Your task to perform on an android device: turn off javascript in the chrome app Image 0: 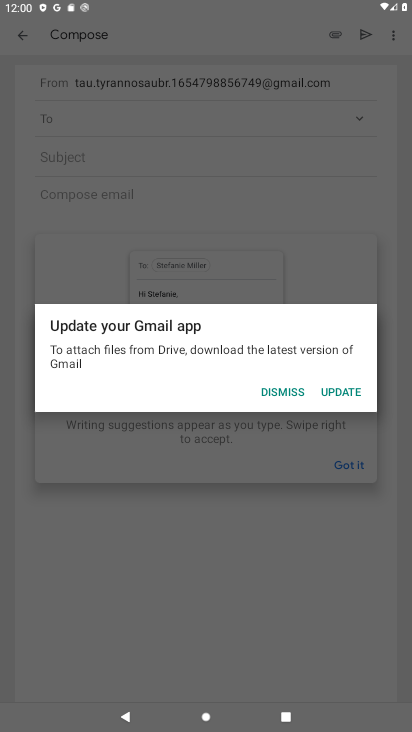
Step 0: press home button
Your task to perform on an android device: turn off javascript in the chrome app Image 1: 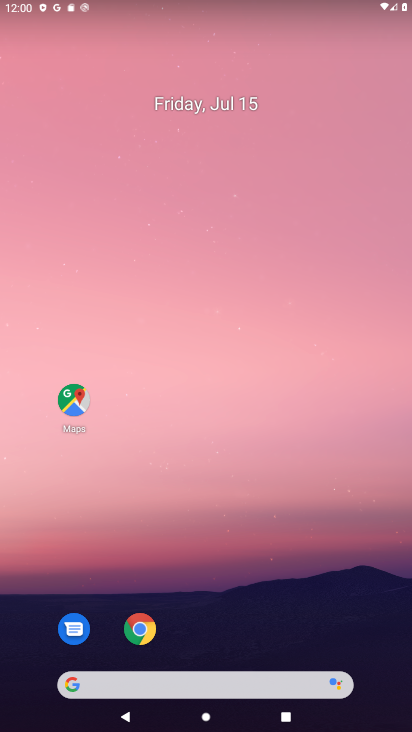
Step 1: click (143, 622)
Your task to perform on an android device: turn off javascript in the chrome app Image 2: 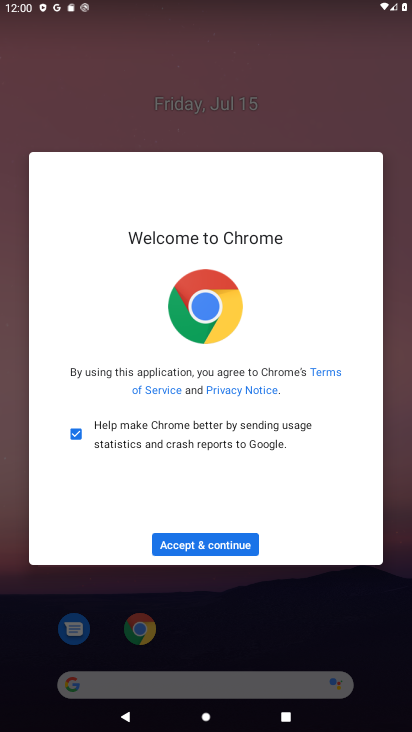
Step 2: click (190, 546)
Your task to perform on an android device: turn off javascript in the chrome app Image 3: 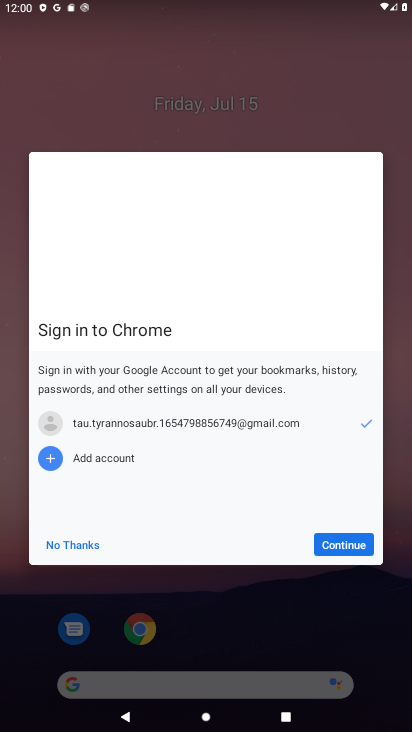
Step 3: click (325, 534)
Your task to perform on an android device: turn off javascript in the chrome app Image 4: 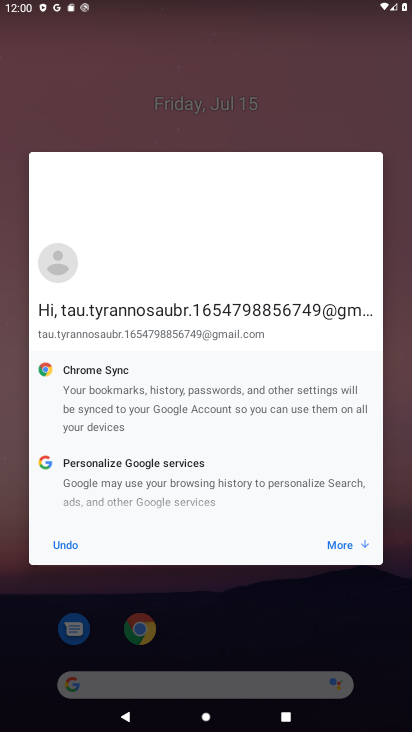
Step 4: click (345, 550)
Your task to perform on an android device: turn off javascript in the chrome app Image 5: 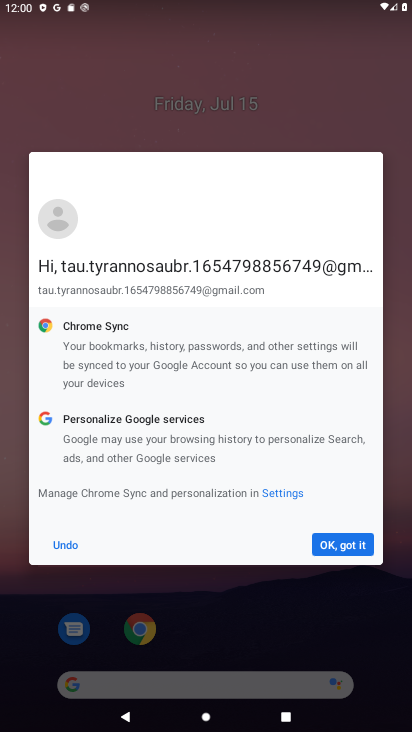
Step 5: click (345, 548)
Your task to perform on an android device: turn off javascript in the chrome app Image 6: 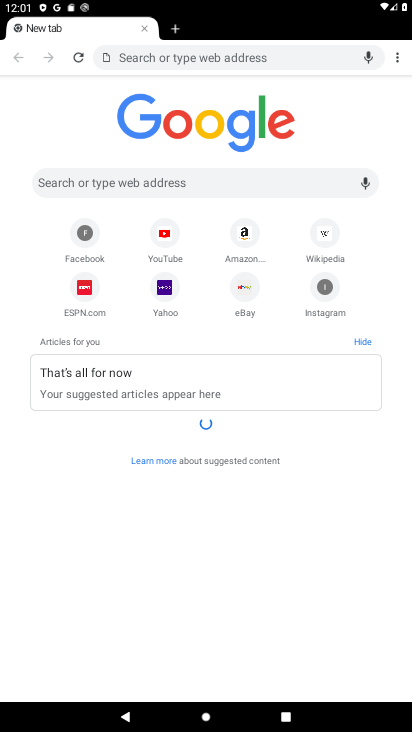
Step 6: click (399, 55)
Your task to perform on an android device: turn off javascript in the chrome app Image 7: 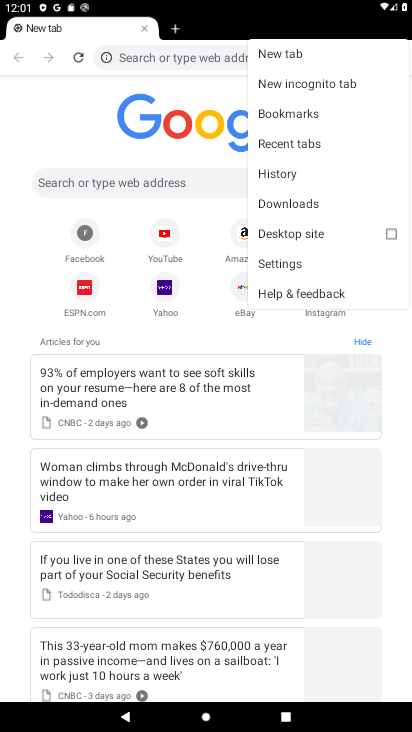
Step 7: click (293, 268)
Your task to perform on an android device: turn off javascript in the chrome app Image 8: 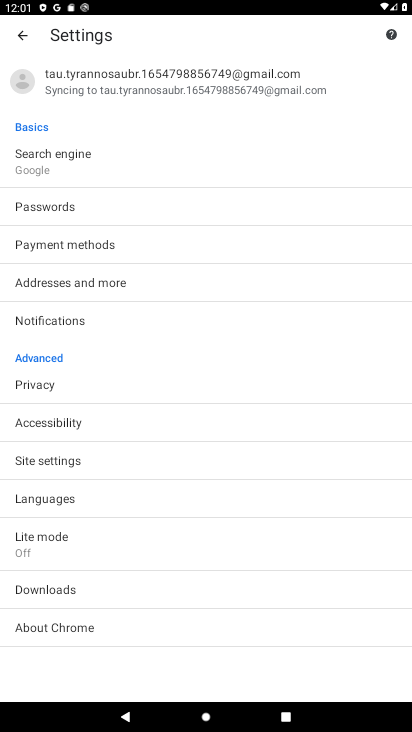
Step 8: click (52, 460)
Your task to perform on an android device: turn off javascript in the chrome app Image 9: 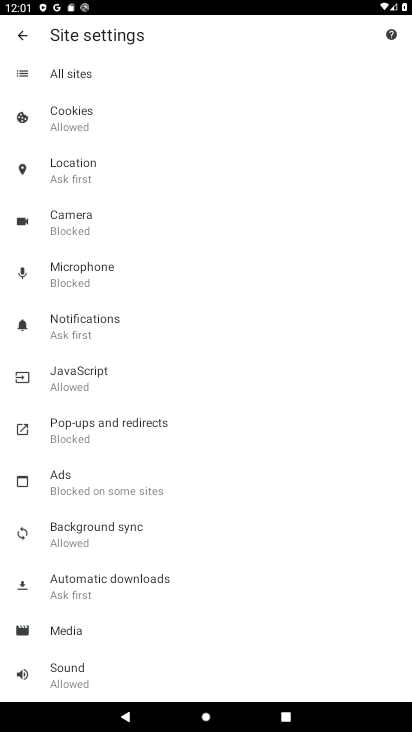
Step 9: click (80, 388)
Your task to perform on an android device: turn off javascript in the chrome app Image 10: 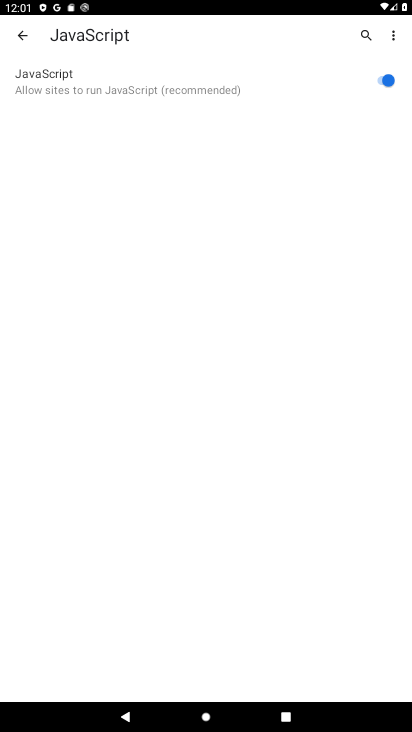
Step 10: click (393, 78)
Your task to perform on an android device: turn off javascript in the chrome app Image 11: 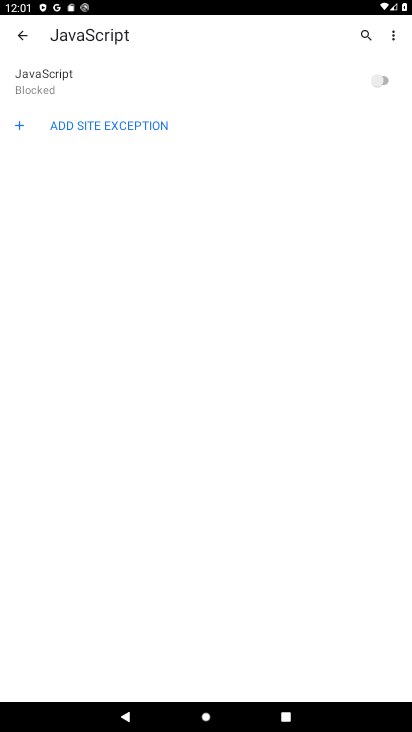
Step 11: task complete